Your task to perform on an android device: add a contact in the contacts app Image 0: 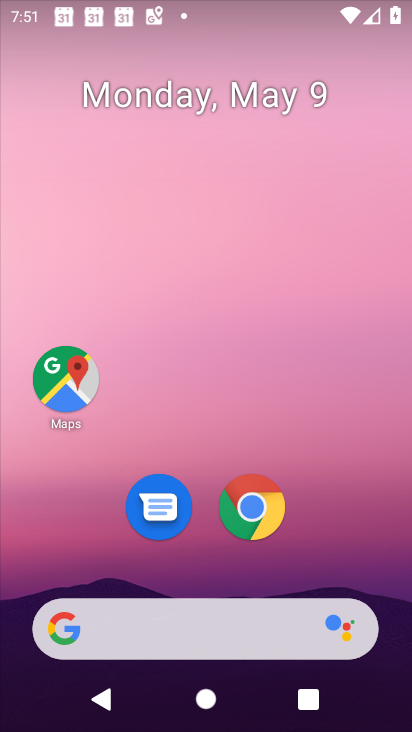
Step 0: drag from (295, 644) to (343, 145)
Your task to perform on an android device: add a contact in the contacts app Image 1: 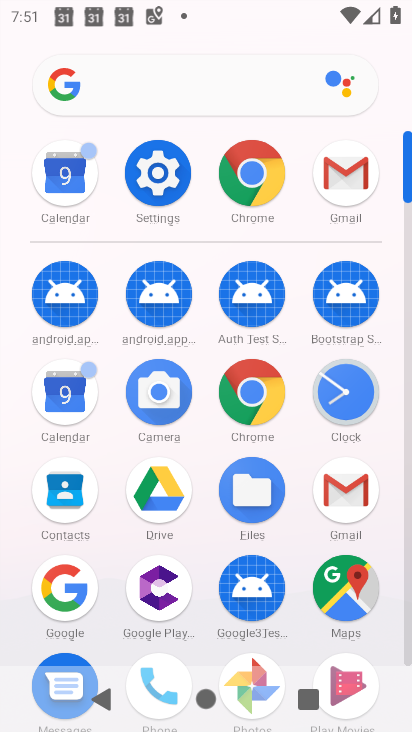
Step 1: click (150, 661)
Your task to perform on an android device: add a contact in the contacts app Image 2: 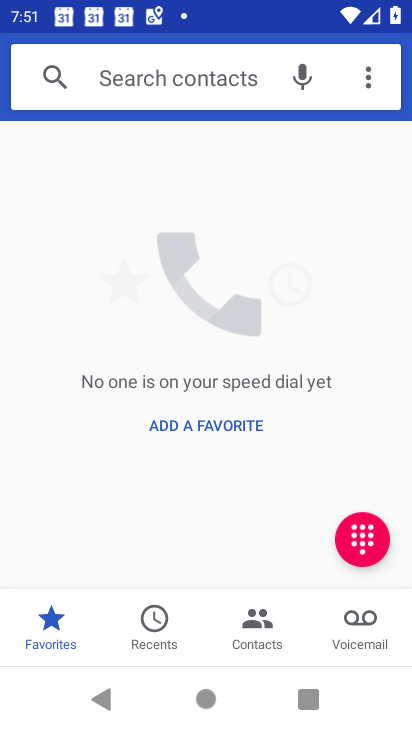
Step 2: click (254, 622)
Your task to perform on an android device: add a contact in the contacts app Image 3: 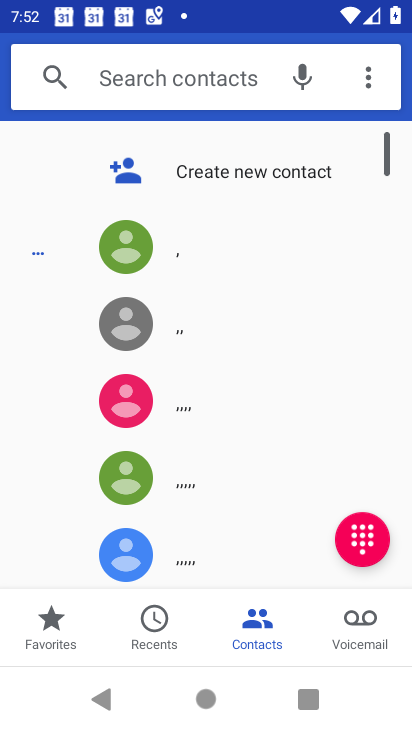
Step 3: click (224, 179)
Your task to perform on an android device: add a contact in the contacts app Image 4: 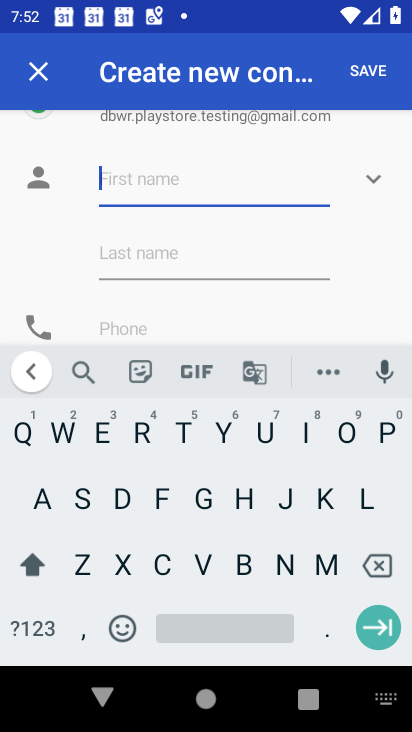
Step 4: click (43, 511)
Your task to perform on an android device: add a contact in the contacts app Image 5: 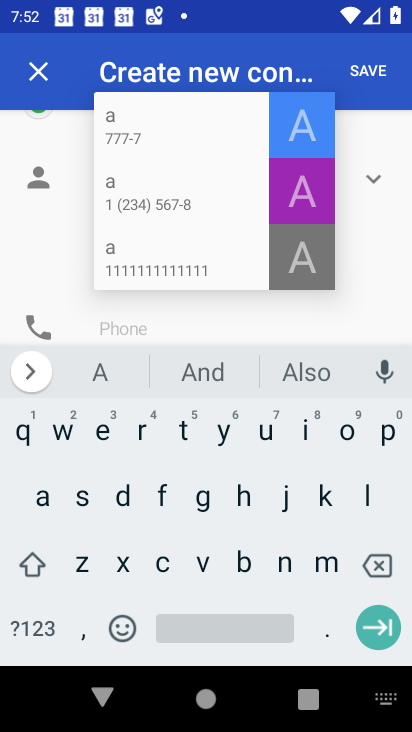
Step 5: click (80, 499)
Your task to perform on an android device: add a contact in the contacts app Image 6: 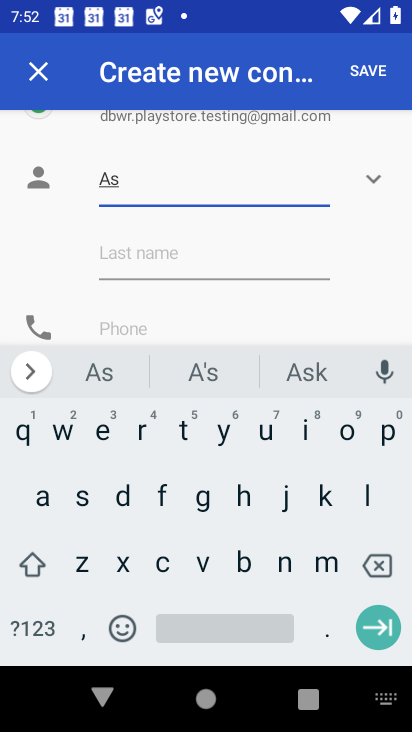
Step 6: click (187, 427)
Your task to perform on an android device: add a contact in the contacts app Image 7: 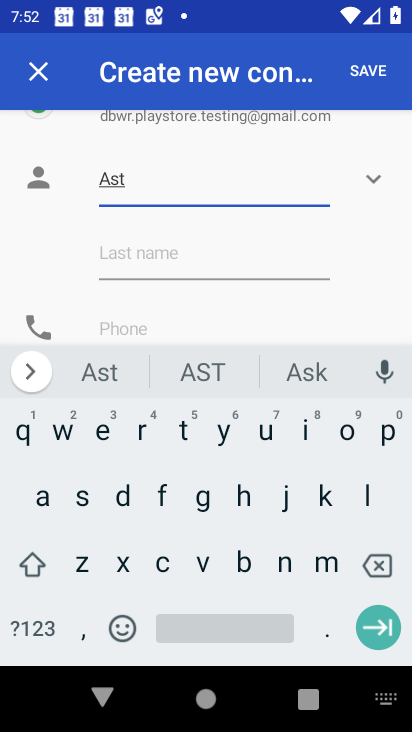
Step 7: click (152, 330)
Your task to perform on an android device: add a contact in the contacts app Image 8: 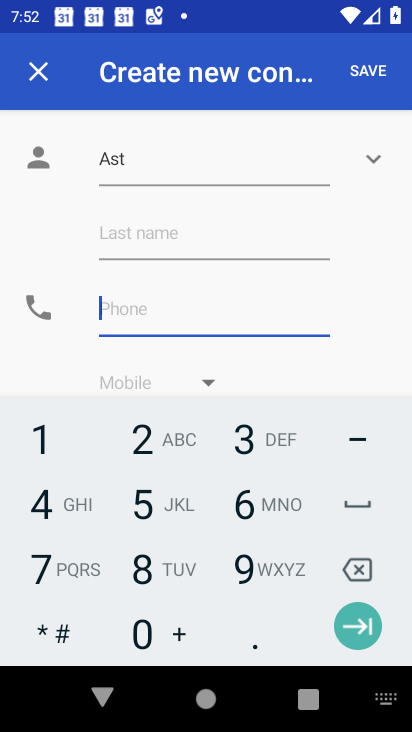
Step 8: click (148, 574)
Your task to perform on an android device: add a contact in the contacts app Image 9: 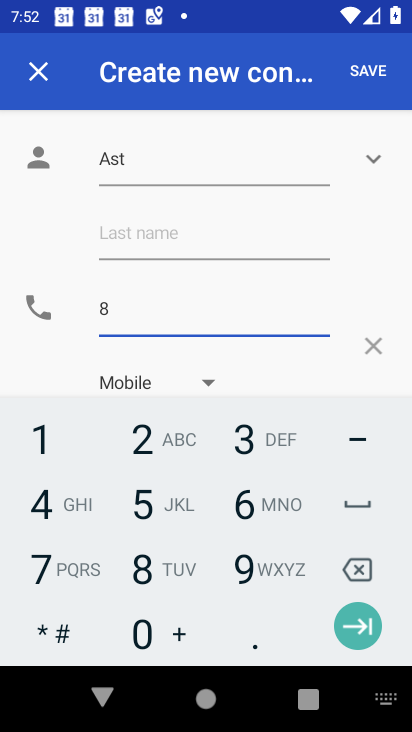
Step 9: click (165, 479)
Your task to perform on an android device: add a contact in the contacts app Image 10: 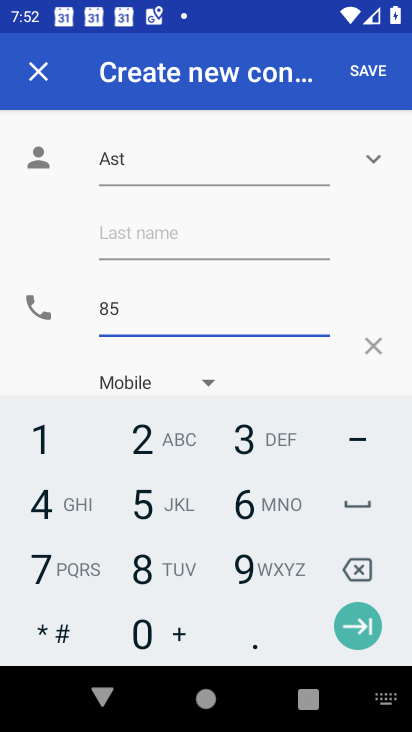
Step 10: click (33, 430)
Your task to perform on an android device: add a contact in the contacts app Image 11: 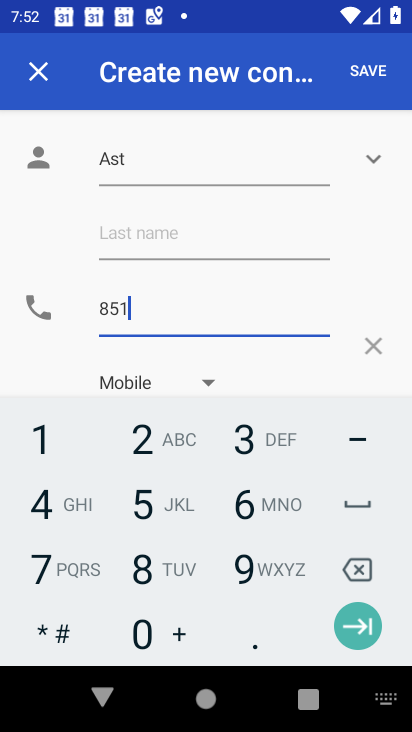
Step 11: click (54, 502)
Your task to perform on an android device: add a contact in the contacts app Image 12: 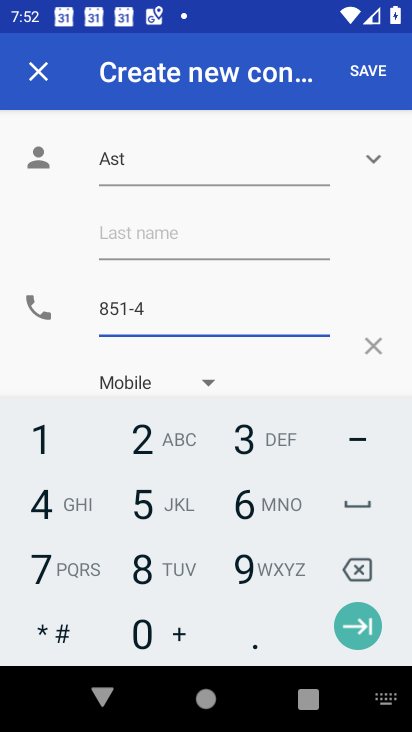
Step 12: click (253, 456)
Your task to perform on an android device: add a contact in the contacts app Image 13: 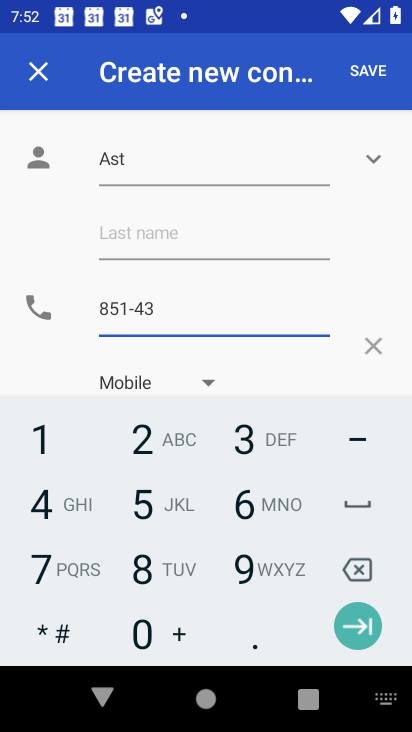
Step 13: click (167, 562)
Your task to perform on an android device: add a contact in the contacts app Image 14: 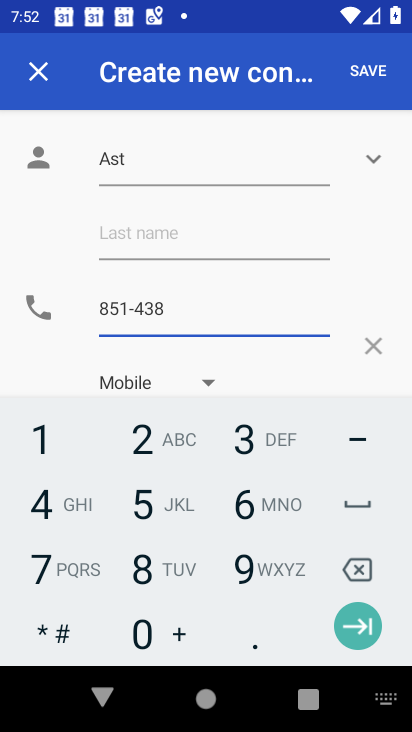
Step 14: click (159, 504)
Your task to perform on an android device: add a contact in the contacts app Image 15: 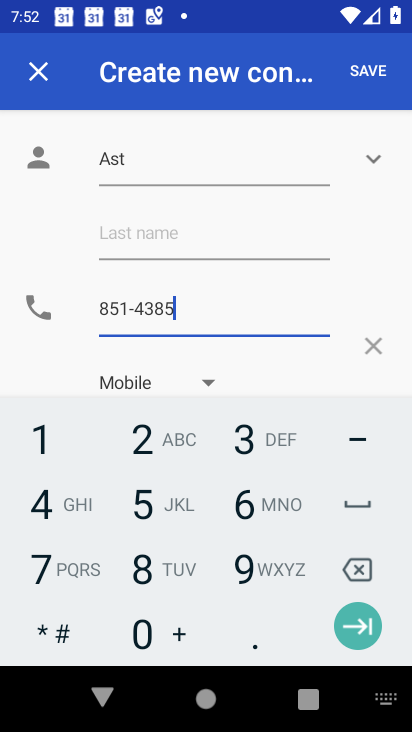
Step 15: click (245, 570)
Your task to perform on an android device: add a contact in the contacts app Image 16: 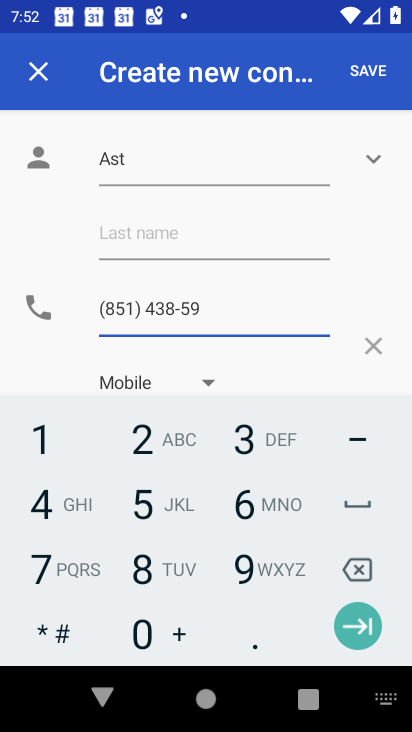
Step 16: click (261, 496)
Your task to perform on an android device: add a contact in the contacts app Image 17: 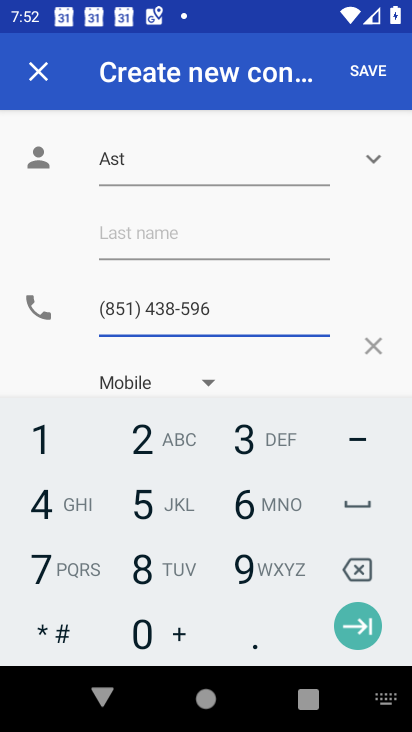
Step 17: click (153, 516)
Your task to perform on an android device: add a contact in the contacts app Image 18: 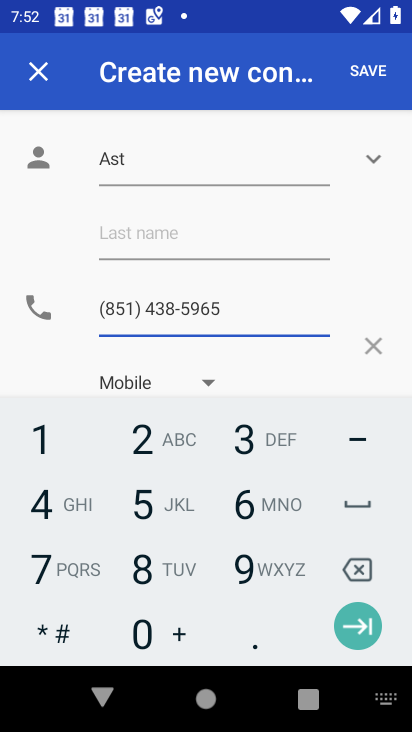
Step 18: click (365, 71)
Your task to perform on an android device: add a contact in the contacts app Image 19: 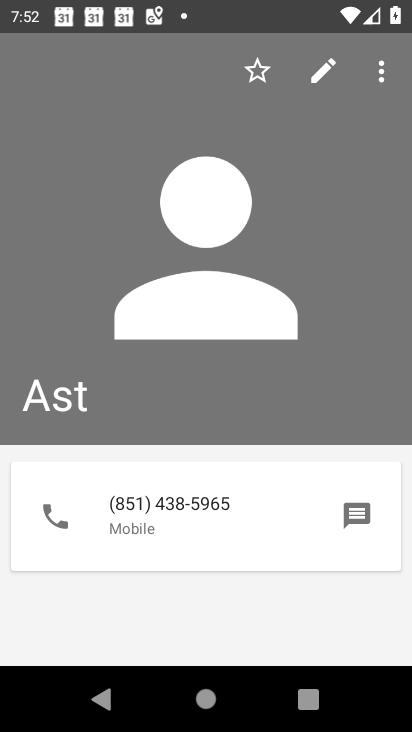
Step 19: task complete